Your task to perform on an android device: empty trash in the gmail app Image 0: 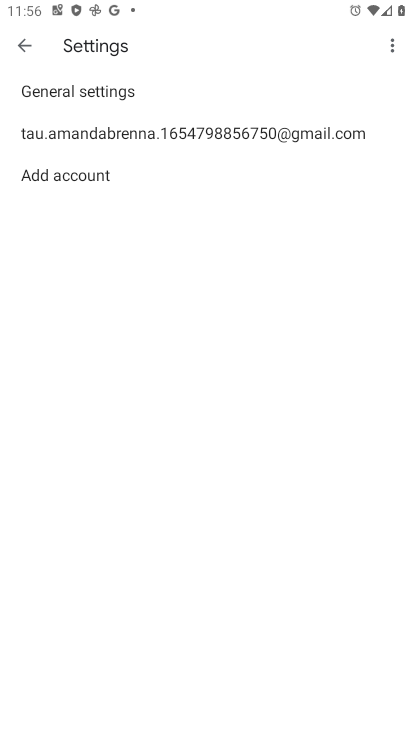
Step 0: press home button
Your task to perform on an android device: empty trash in the gmail app Image 1: 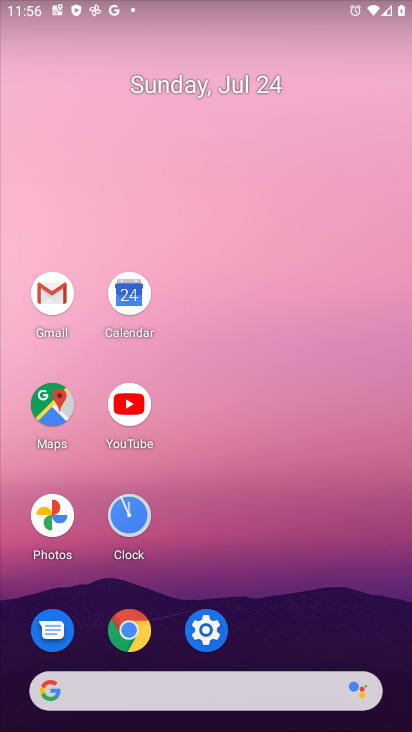
Step 1: click (52, 293)
Your task to perform on an android device: empty trash in the gmail app Image 2: 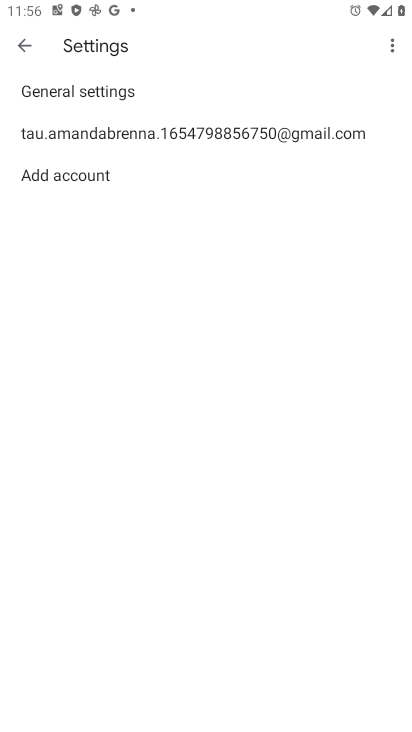
Step 2: click (23, 40)
Your task to perform on an android device: empty trash in the gmail app Image 3: 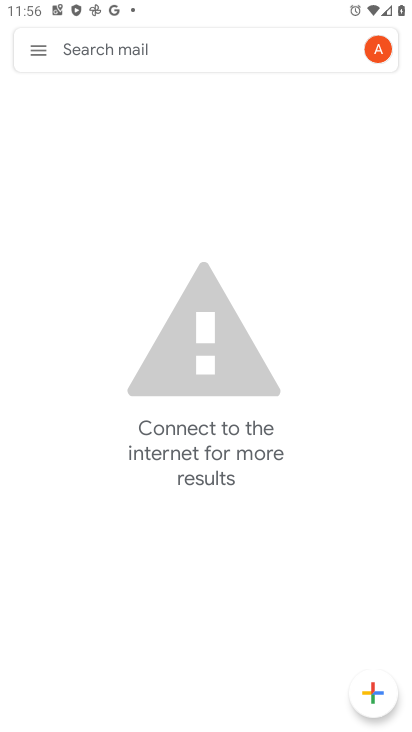
Step 3: click (32, 44)
Your task to perform on an android device: empty trash in the gmail app Image 4: 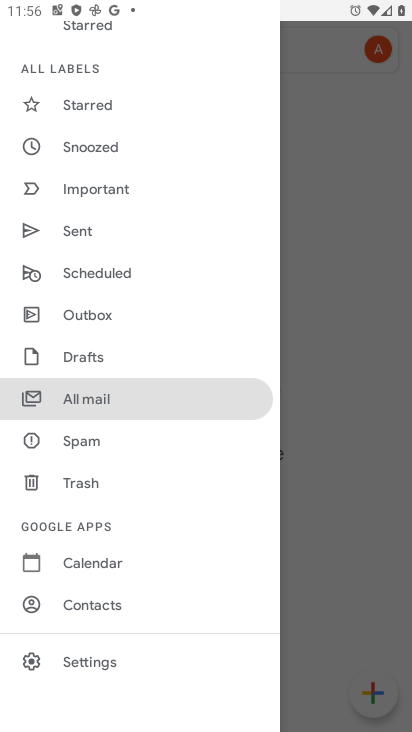
Step 4: click (86, 480)
Your task to perform on an android device: empty trash in the gmail app Image 5: 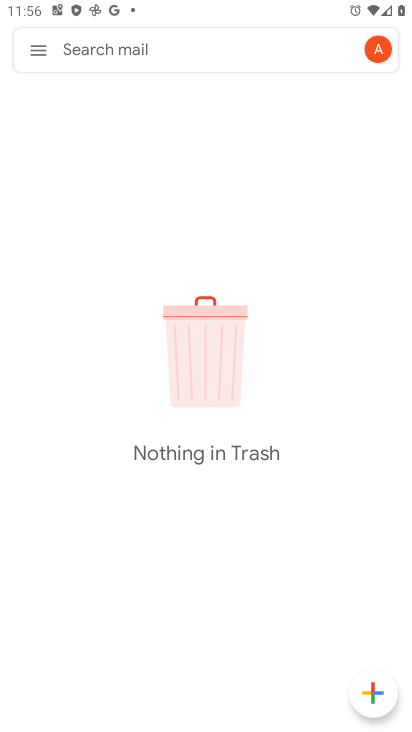
Step 5: task complete